Your task to perform on an android device: check the backup settings in the google photos Image 0: 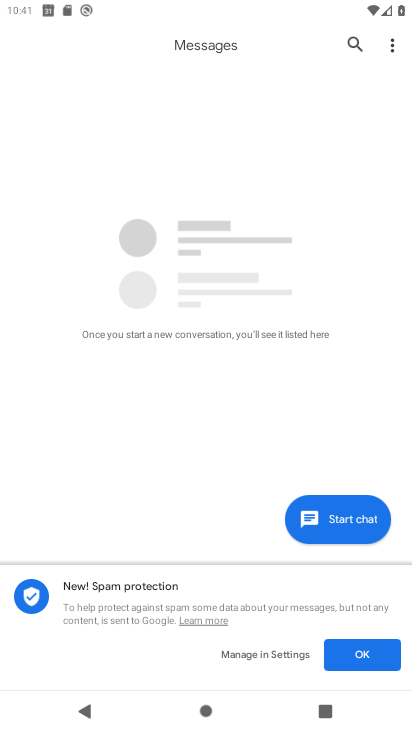
Step 0: press home button
Your task to perform on an android device: check the backup settings in the google photos Image 1: 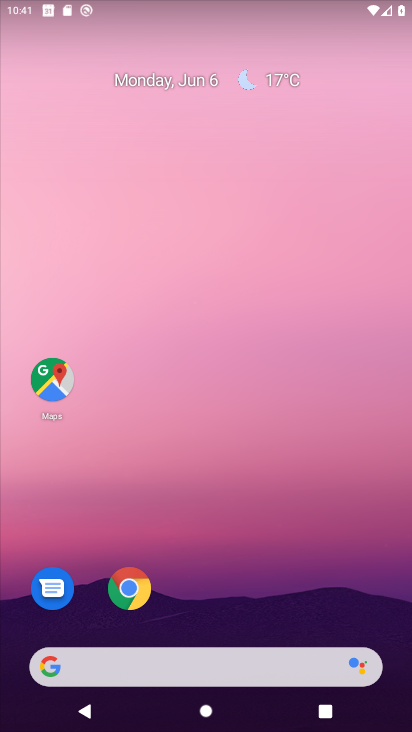
Step 1: drag from (241, 382) to (275, 205)
Your task to perform on an android device: check the backup settings in the google photos Image 2: 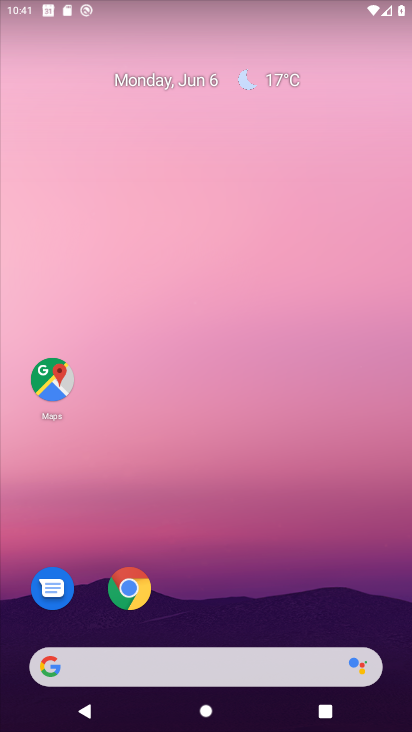
Step 2: drag from (250, 476) to (294, 177)
Your task to perform on an android device: check the backup settings in the google photos Image 3: 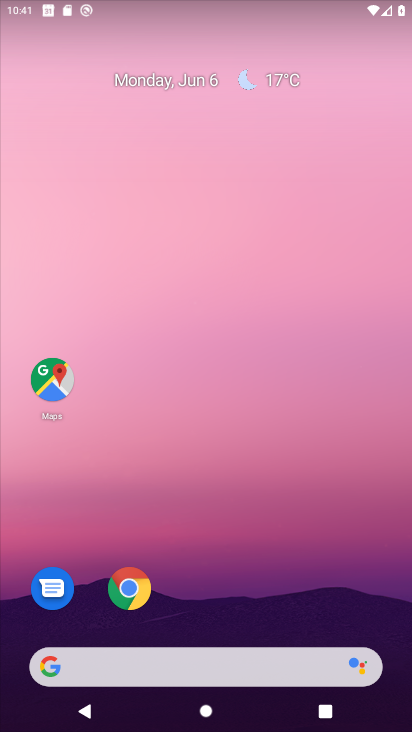
Step 3: drag from (223, 651) to (336, 94)
Your task to perform on an android device: check the backup settings in the google photos Image 4: 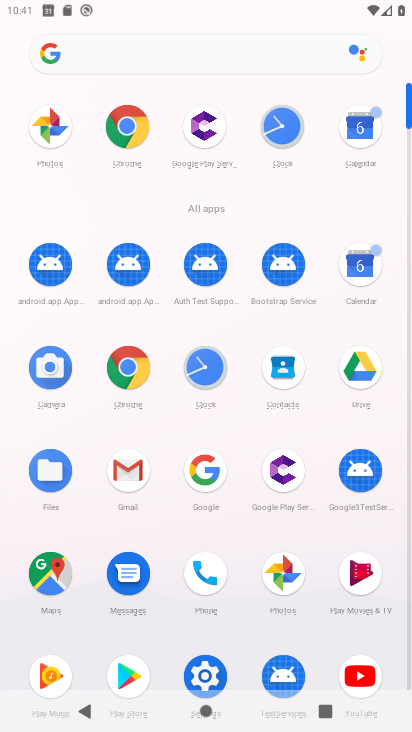
Step 4: click (263, 597)
Your task to perform on an android device: check the backup settings in the google photos Image 5: 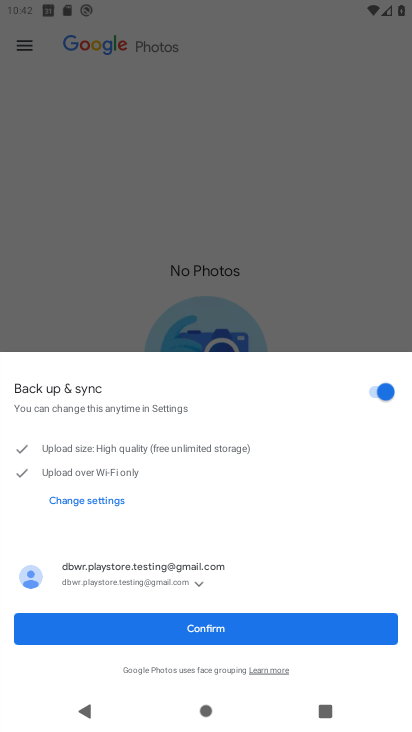
Step 5: click (220, 629)
Your task to perform on an android device: check the backup settings in the google photos Image 6: 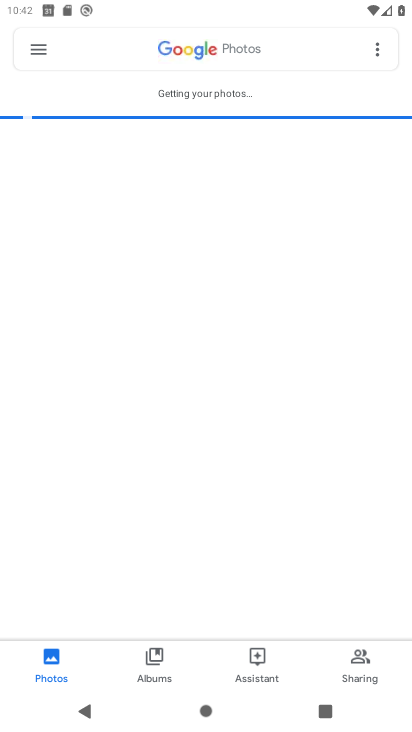
Step 6: click (45, 58)
Your task to perform on an android device: check the backup settings in the google photos Image 7: 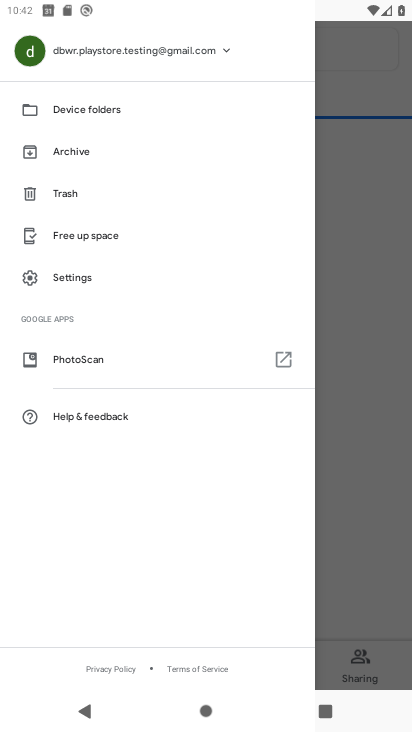
Step 7: click (113, 275)
Your task to perform on an android device: check the backup settings in the google photos Image 8: 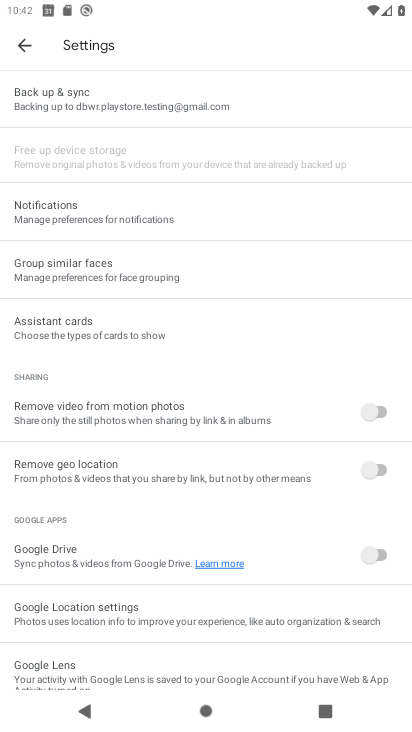
Step 8: click (175, 107)
Your task to perform on an android device: check the backup settings in the google photos Image 9: 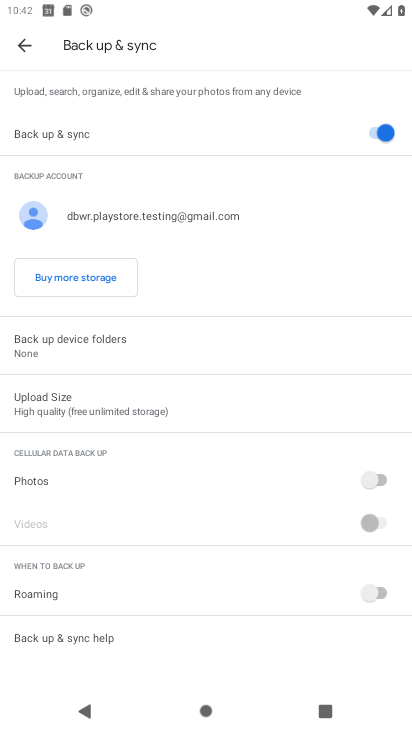
Step 9: task complete